Your task to perform on an android device: add a label to a message in the gmail app Image 0: 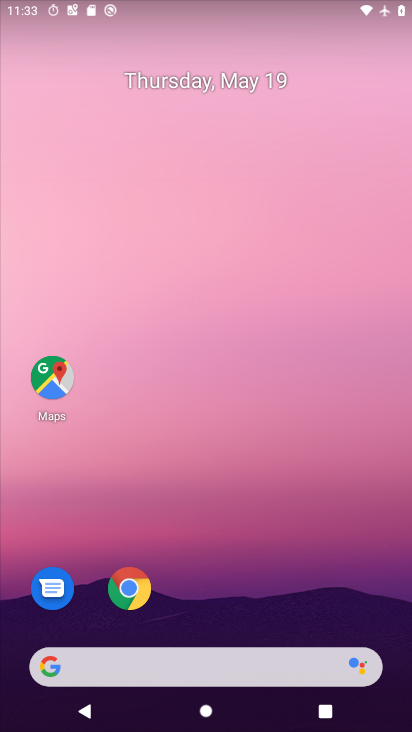
Step 0: press home button
Your task to perform on an android device: add a label to a message in the gmail app Image 1: 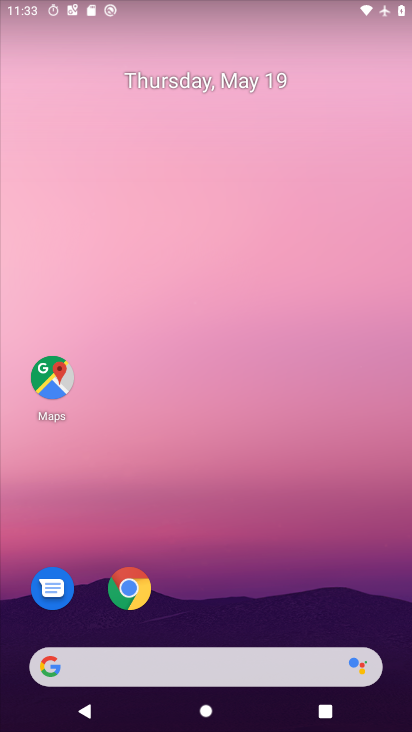
Step 1: drag from (143, 675) to (285, 240)
Your task to perform on an android device: add a label to a message in the gmail app Image 2: 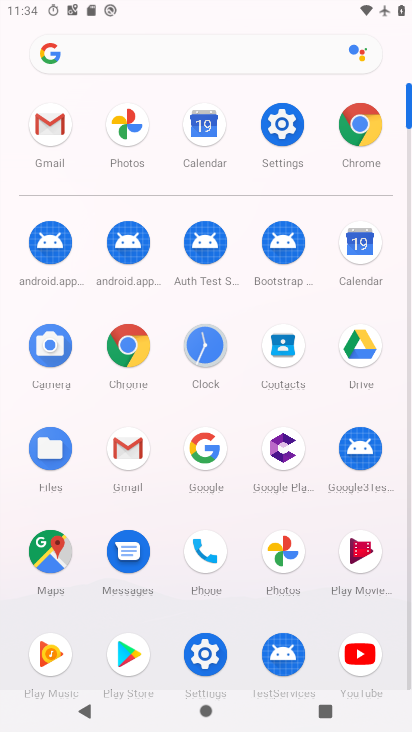
Step 2: click (52, 131)
Your task to perform on an android device: add a label to a message in the gmail app Image 3: 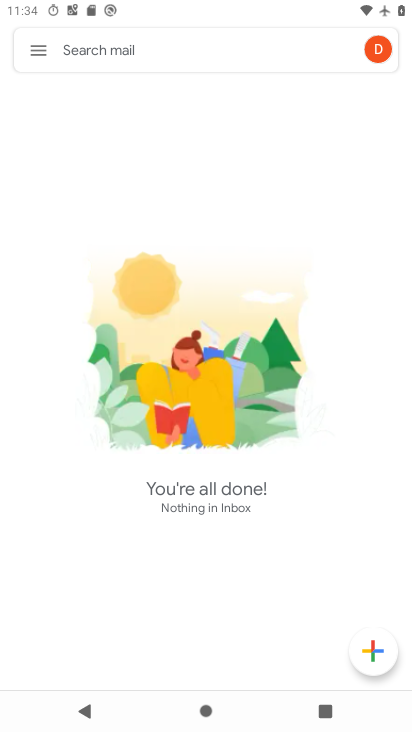
Step 3: task complete